Your task to perform on an android device: Open Amazon Image 0: 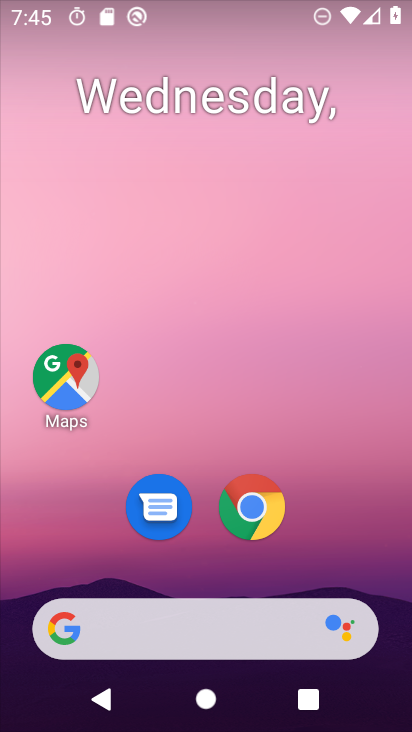
Step 0: drag from (242, 670) to (302, 220)
Your task to perform on an android device: Open Amazon Image 1: 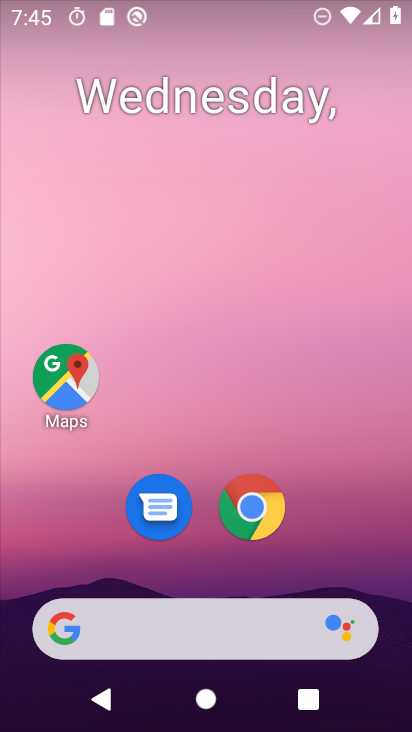
Step 1: drag from (220, 667) to (291, 92)
Your task to perform on an android device: Open Amazon Image 2: 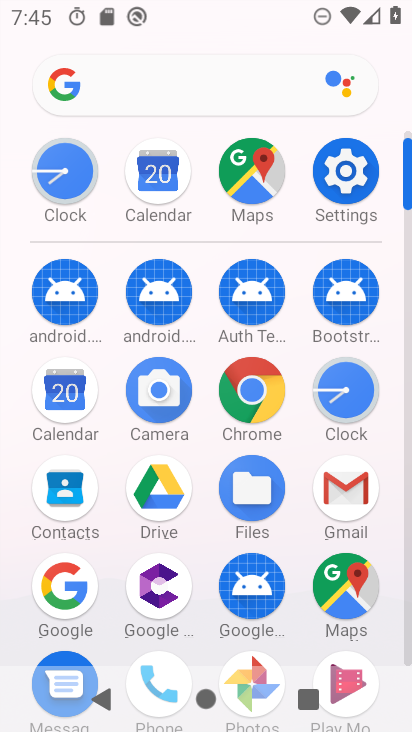
Step 2: click (240, 387)
Your task to perform on an android device: Open Amazon Image 3: 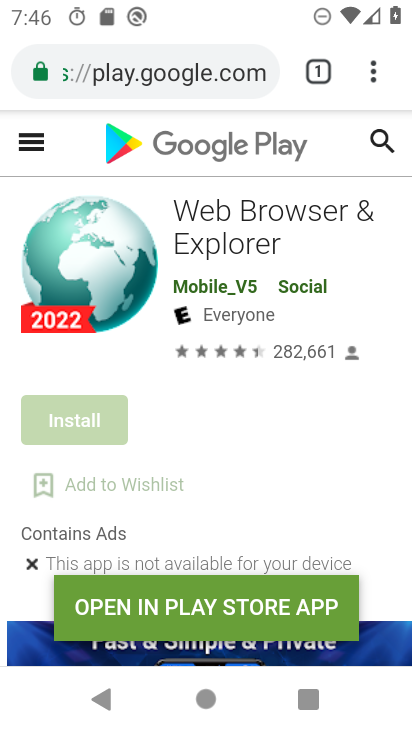
Step 3: click (319, 82)
Your task to perform on an android device: Open Amazon Image 4: 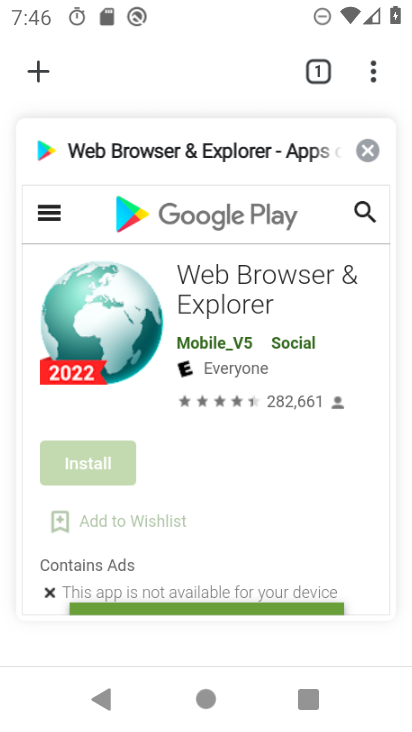
Step 4: click (42, 68)
Your task to perform on an android device: Open Amazon Image 5: 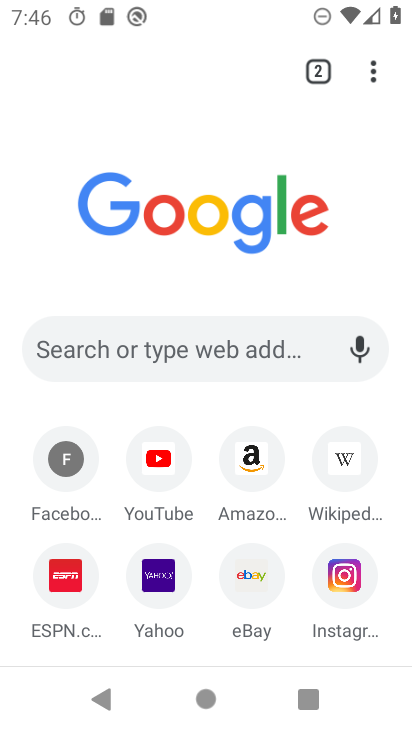
Step 5: click (256, 461)
Your task to perform on an android device: Open Amazon Image 6: 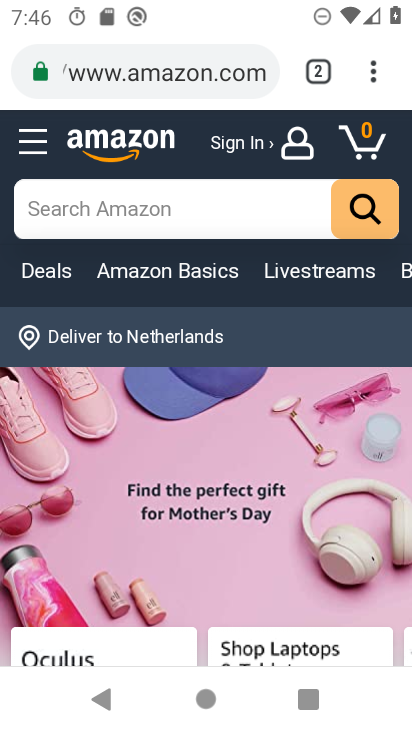
Step 6: task complete